Your task to perform on an android device: toggle wifi Image 0: 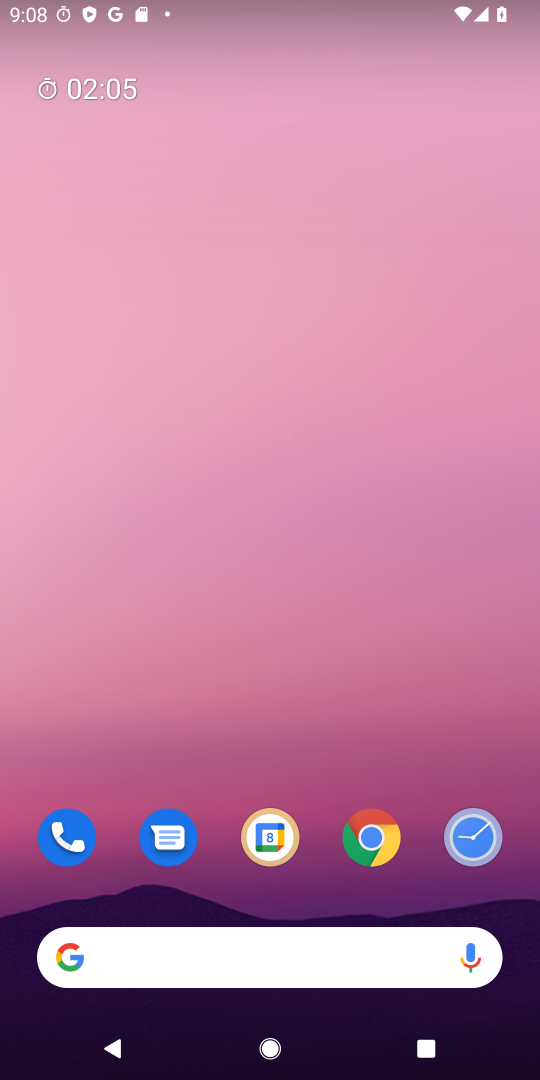
Step 0: drag from (260, 677) to (343, 24)
Your task to perform on an android device: toggle wifi Image 1: 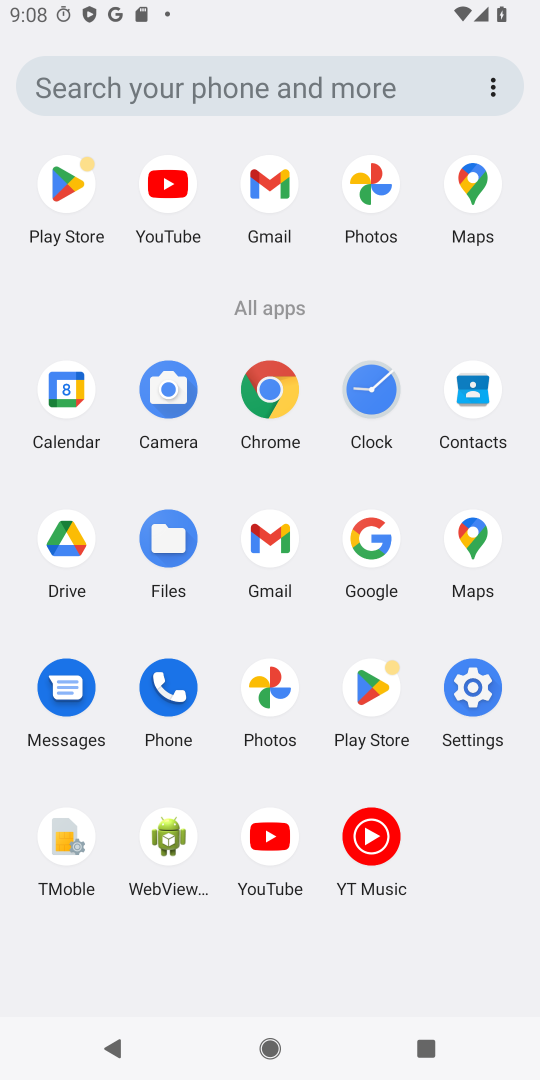
Step 1: click (466, 673)
Your task to perform on an android device: toggle wifi Image 2: 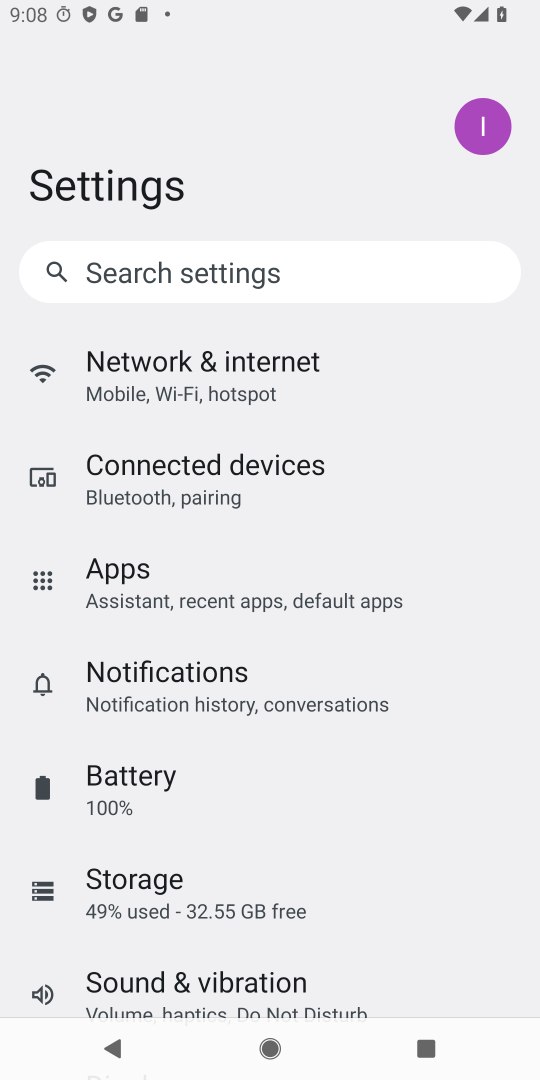
Step 2: click (205, 386)
Your task to perform on an android device: toggle wifi Image 3: 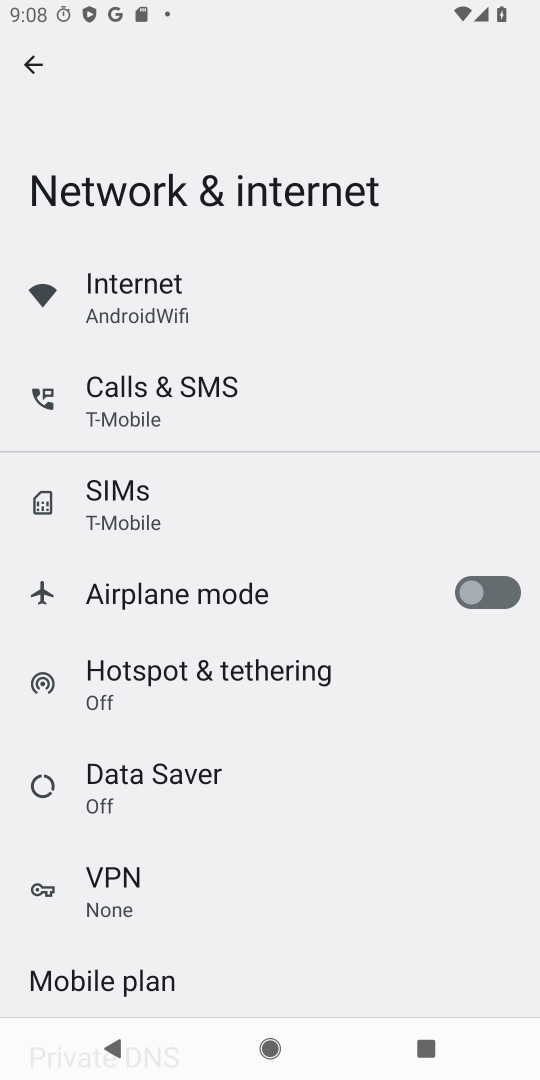
Step 3: click (164, 317)
Your task to perform on an android device: toggle wifi Image 4: 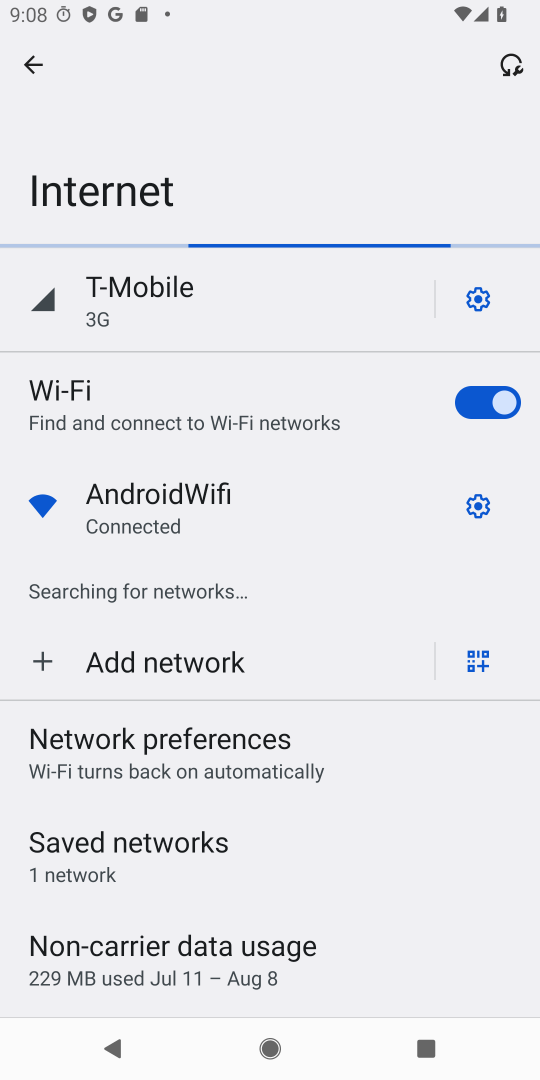
Step 4: click (467, 392)
Your task to perform on an android device: toggle wifi Image 5: 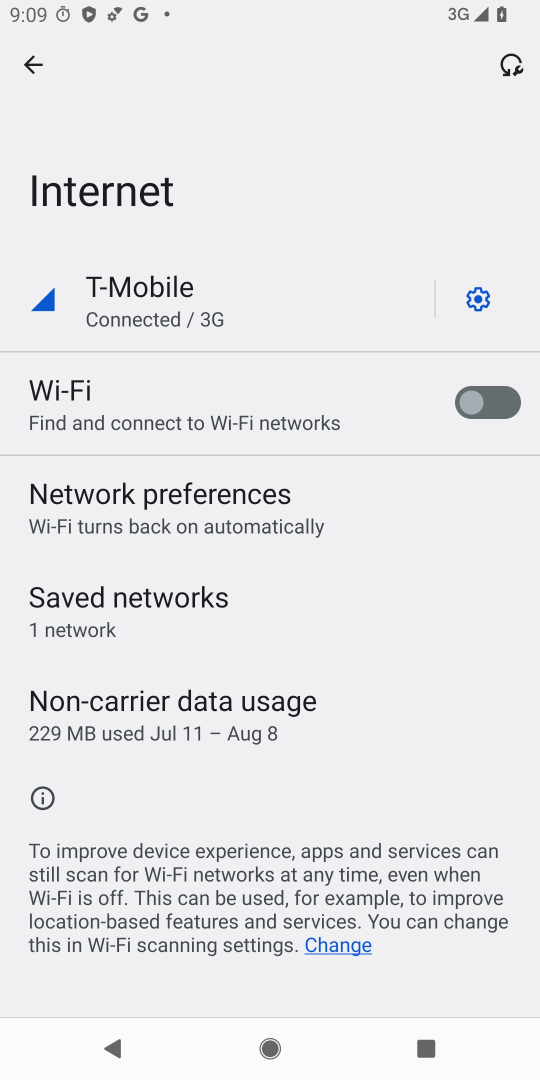
Step 5: task complete